Your task to perform on an android device: What's on my calendar tomorrow? Image 0: 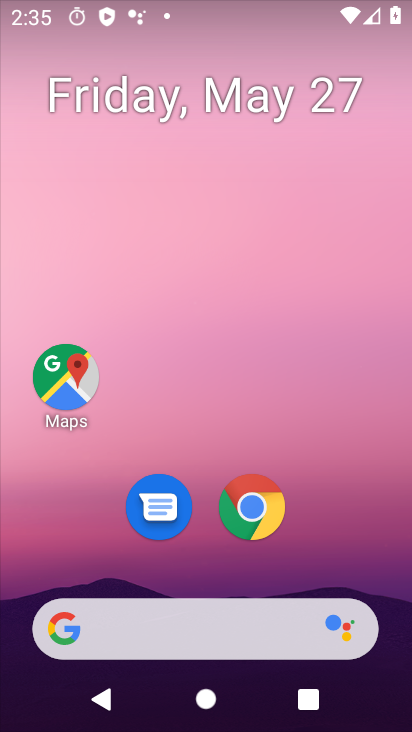
Step 0: drag from (233, 313) to (258, 167)
Your task to perform on an android device: What's on my calendar tomorrow? Image 1: 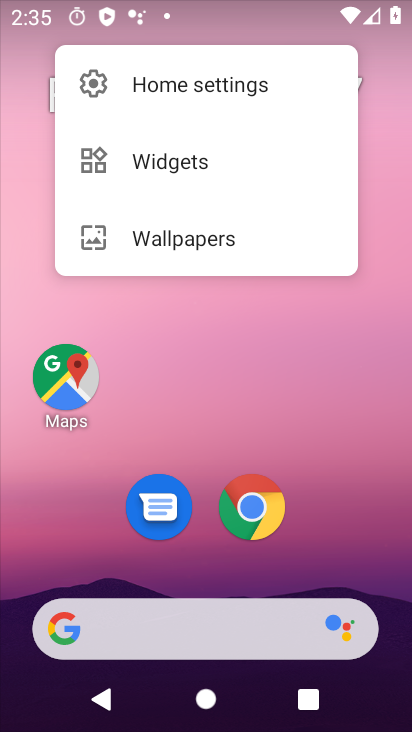
Step 1: click (206, 398)
Your task to perform on an android device: What's on my calendar tomorrow? Image 2: 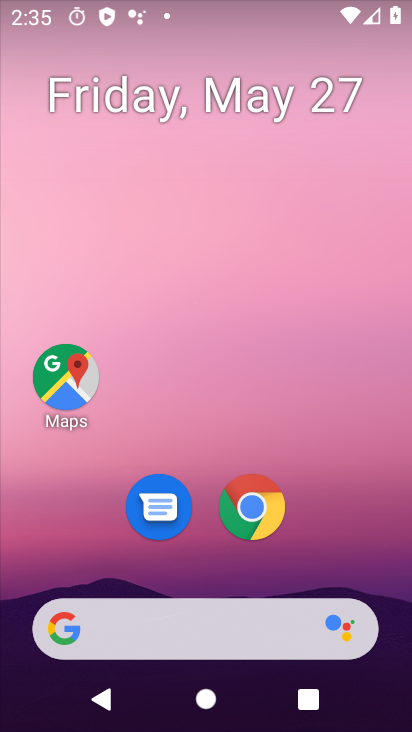
Step 2: drag from (199, 603) to (248, 131)
Your task to perform on an android device: What's on my calendar tomorrow? Image 3: 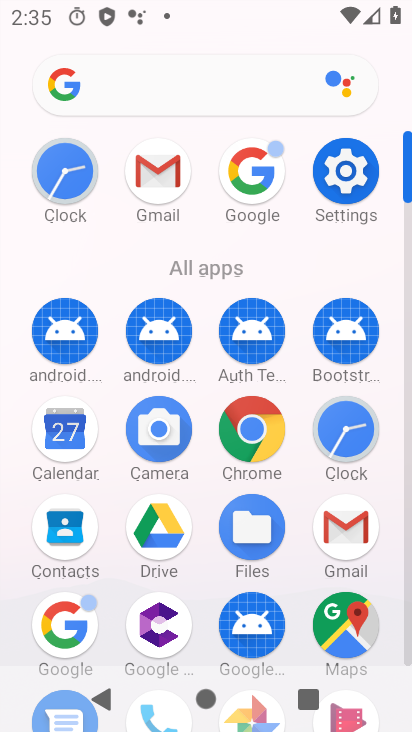
Step 3: click (74, 439)
Your task to perform on an android device: What's on my calendar tomorrow? Image 4: 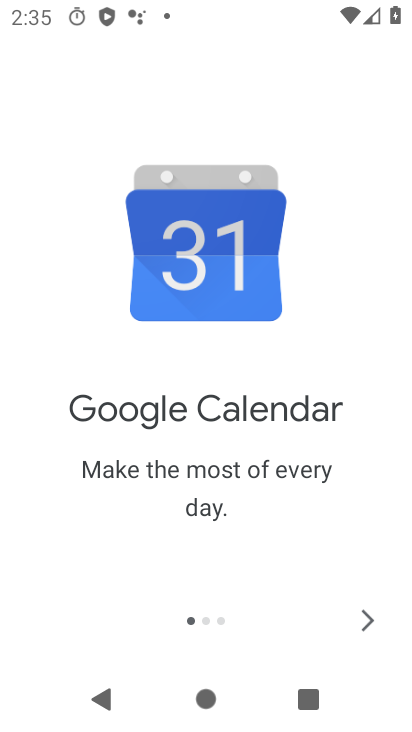
Step 4: click (366, 615)
Your task to perform on an android device: What's on my calendar tomorrow? Image 5: 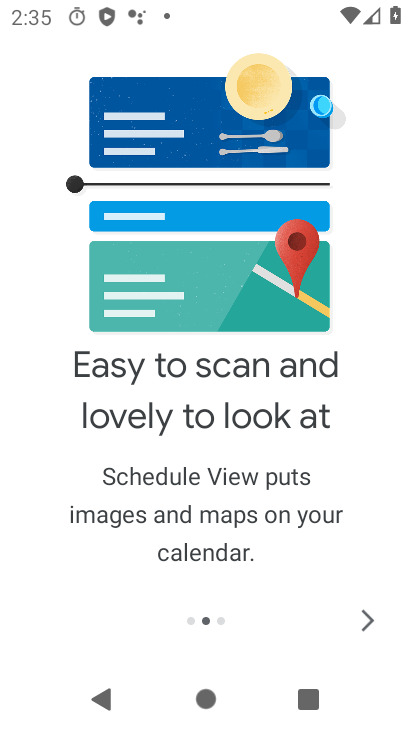
Step 5: click (366, 615)
Your task to perform on an android device: What's on my calendar tomorrow? Image 6: 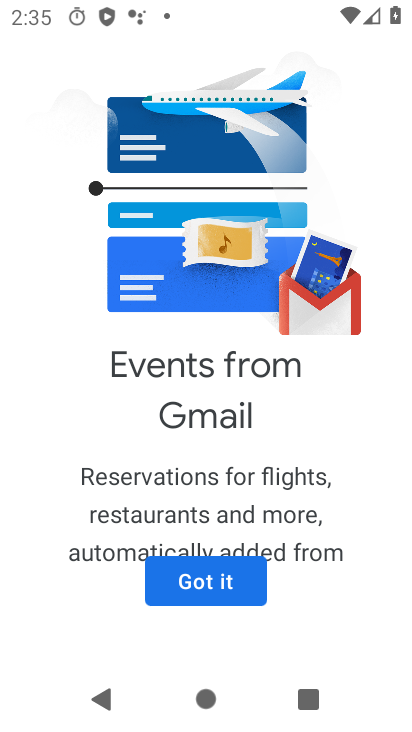
Step 6: click (207, 587)
Your task to perform on an android device: What's on my calendar tomorrow? Image 7: 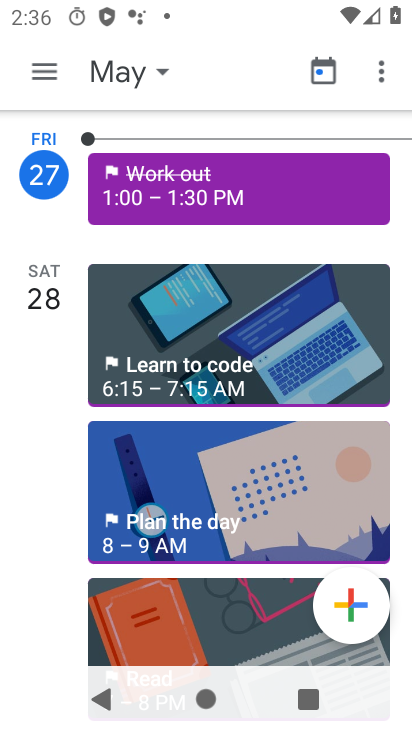
Step 7: click (149, 325)
Your task to perform on an android device: What's on my calendar tomorrow? Image 8: 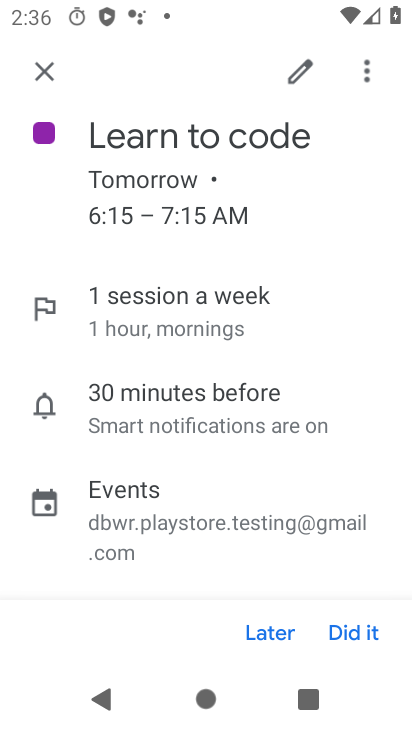
Step 8: task complete